Your task to perform on an android device: Go to internet settings Image 0: 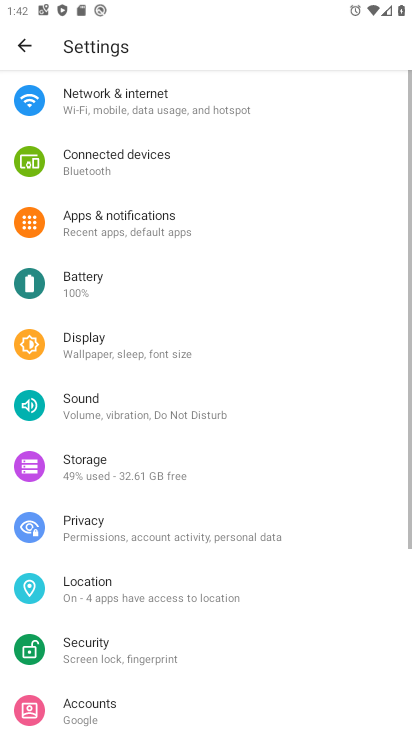
Step 0: click (159, 108)
Your task to perform on an android device: Go to internet settings Image 1: 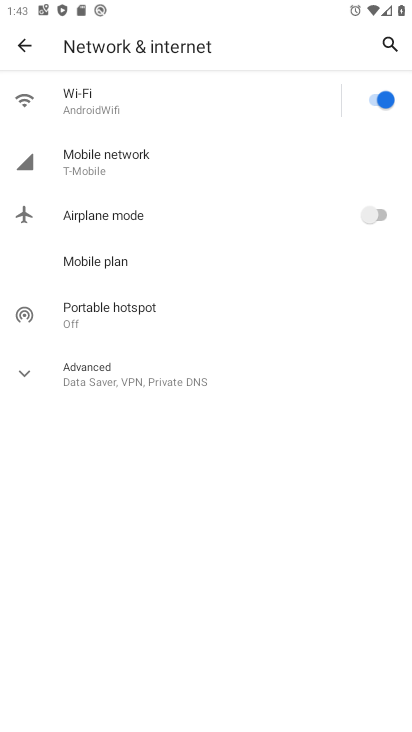
Step 1: click (106, 380)
Your task to perform on an android device: Go to internet settings Image 2: 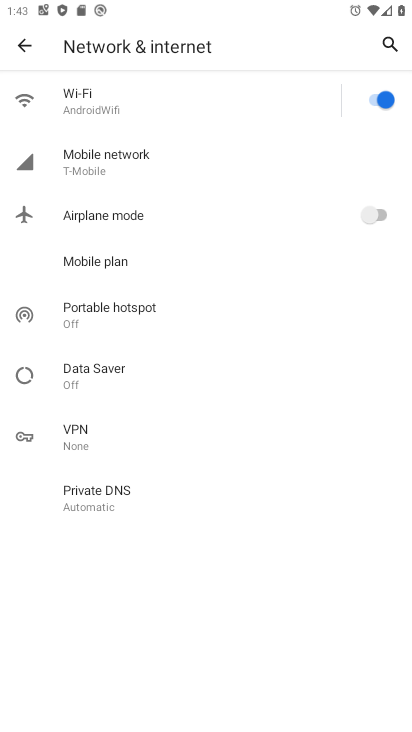
Step 2: task complete